Your task to perform on an android device: Go to settings Image 0: 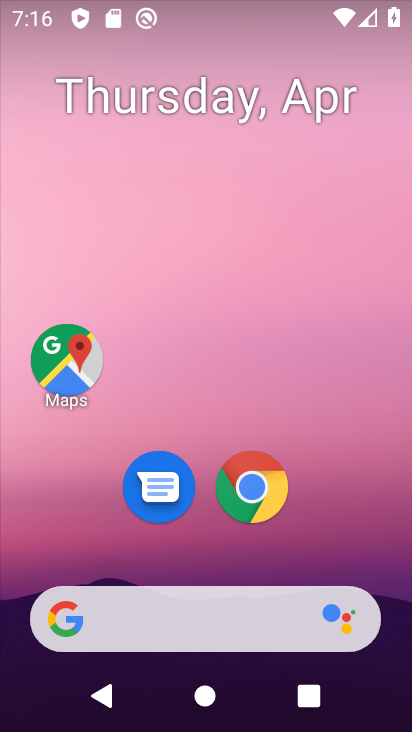
Step 0: drag from (368, 524) to (297, 81)
Your task to perform on an android device: Go to settings Image 1: 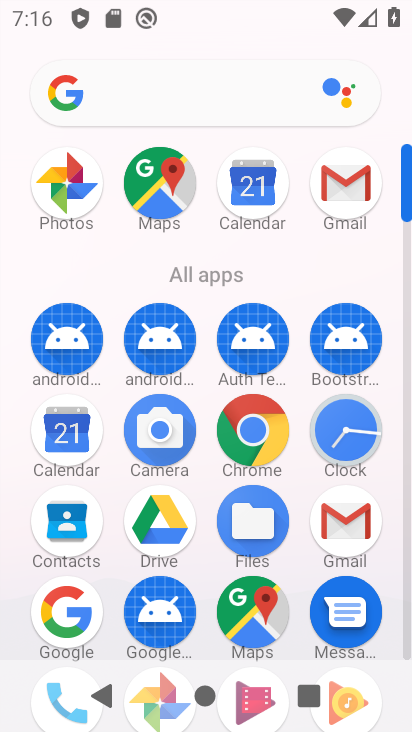
Step 1: click (408, 660)
Your task to perform on an android device: Go to settings Image 2: 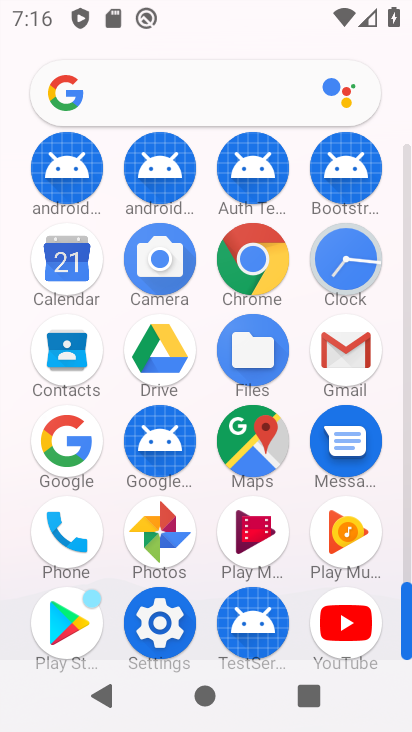
Step 2: click (139, 618)
Your task to perform on an android device: Go to settings Image 3: 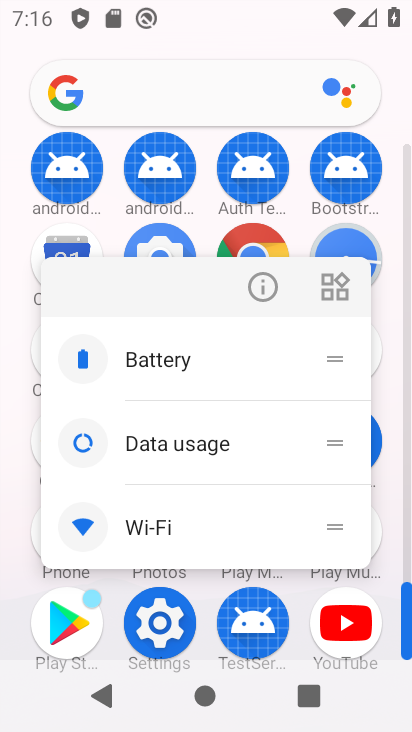
Step 3: click (148, 619)
Your task to perform on an android device: Go to settings Image 4: 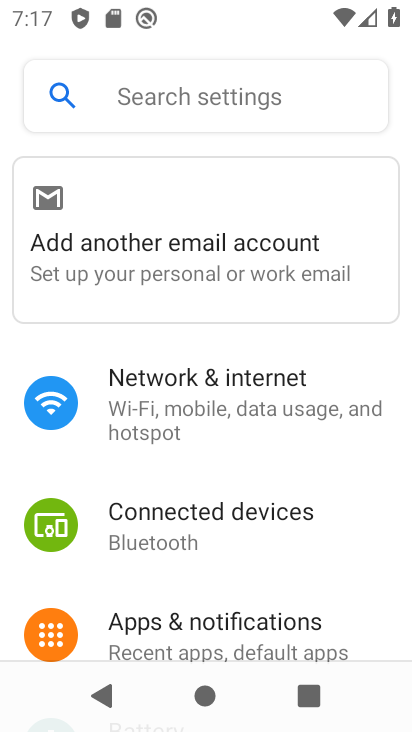
Step 4: task complete